Your task to perform on an android device: turn pop-ups on in chrome Image 0: 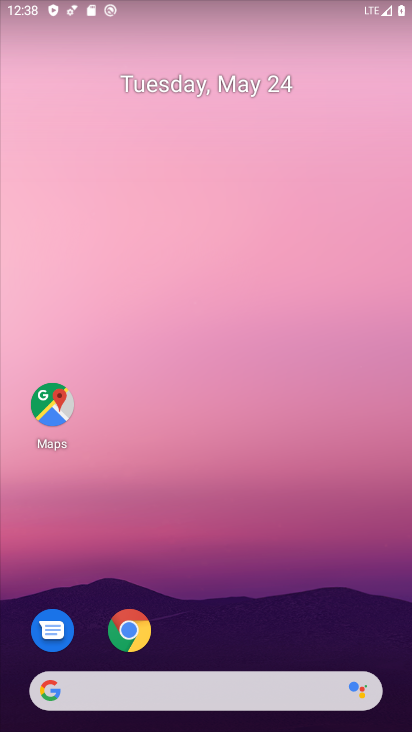
Step 0: click (52, 412)
Your task to perform on an android device: turn pop-ups on in chrome Image 1: 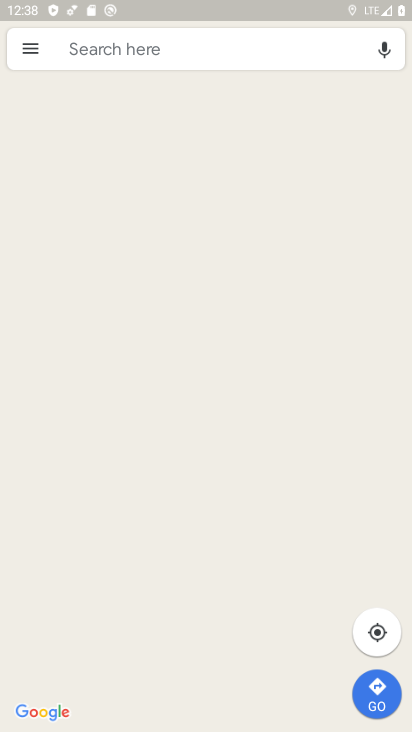
Step 1: press home button
Your task to perform on an android device: turn pop-ups on in chrome Image 2: 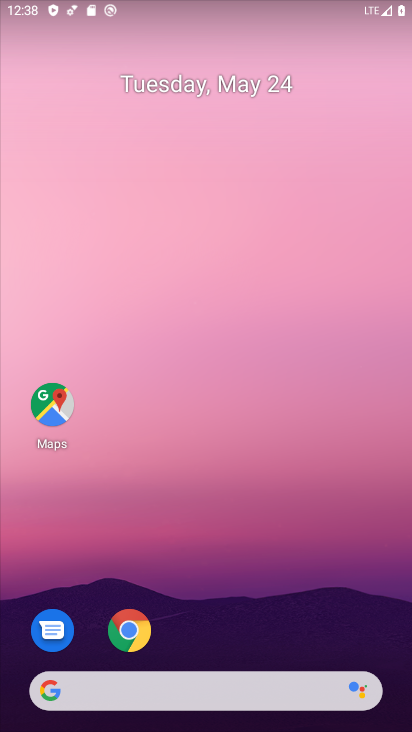
Step 2: click (130, 619)
Your task to perform on an android device: turn pop-ups on in chrome Image 3: 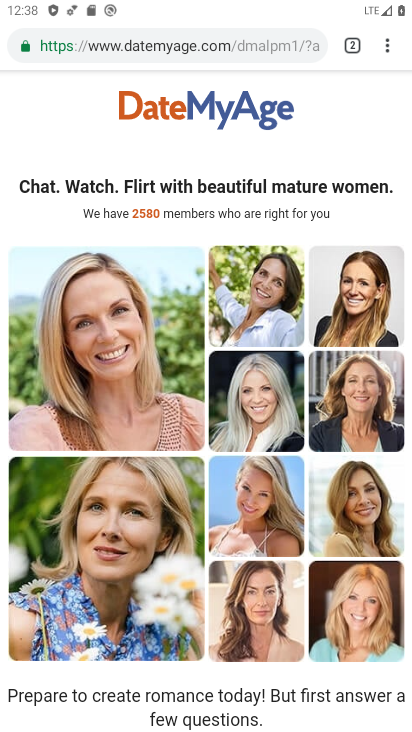
Step 3: click (391, 50)
Your task to perform on an android device: turn pop-ups on in chrome Image 4: 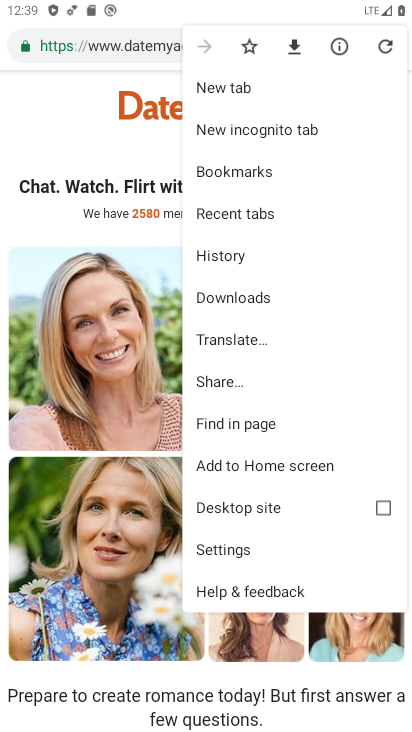
Step 4: click (244, 549)
Your task to perform on an android device: turn pop-ups on in chrome Image 5: 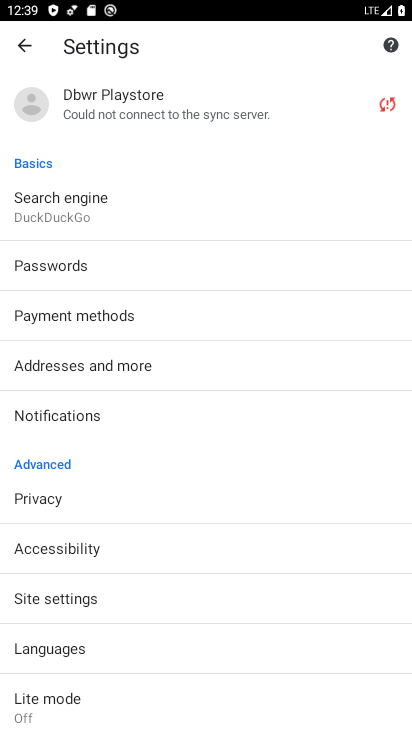
Step 5: click (113, 600)
Your task to perform on an android device: turn pop-ups on in chrome Image 6: 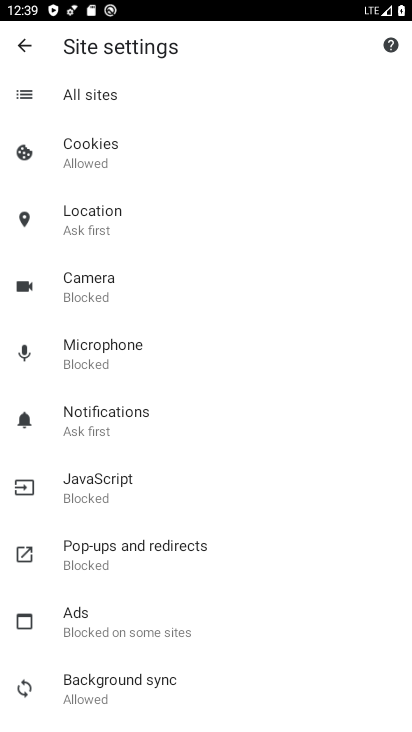
Step 6: click (138, 545)
Your task to perform on an android device: turn pop-ups on in chrome Image 7: 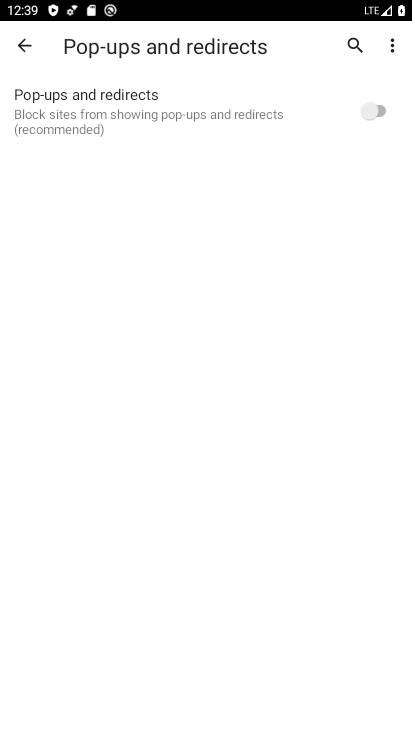
Step 7: click (377, 104)
Your task to perform on an android device: turn pop-ups on in chrome Image 8: 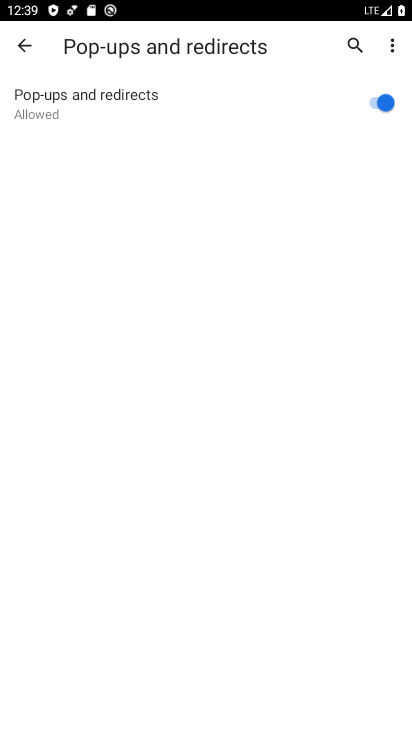
Step 8: task complete